Your task to perform on an android device: Show me recent news Image 0: 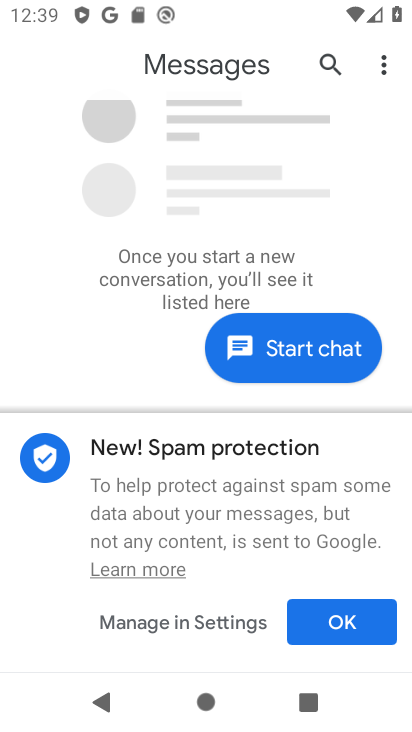
Step 0: press home button
Your task to perform on an android device: Show me recent news Image 1: 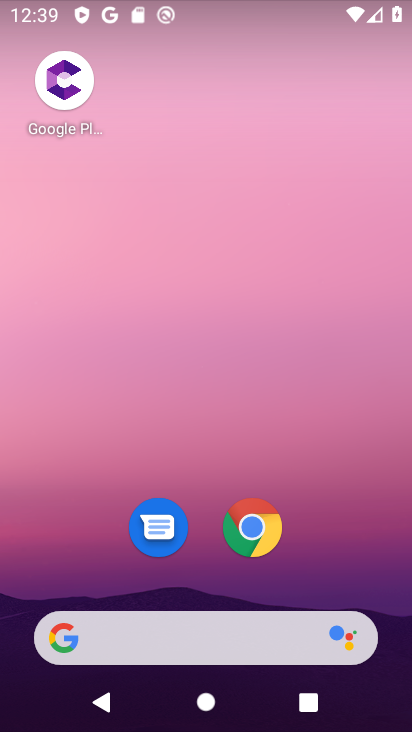
Step 1: drag from (347, 586) to (264, 109)
Your task to perform on an android device: Show me recent news Image 2: 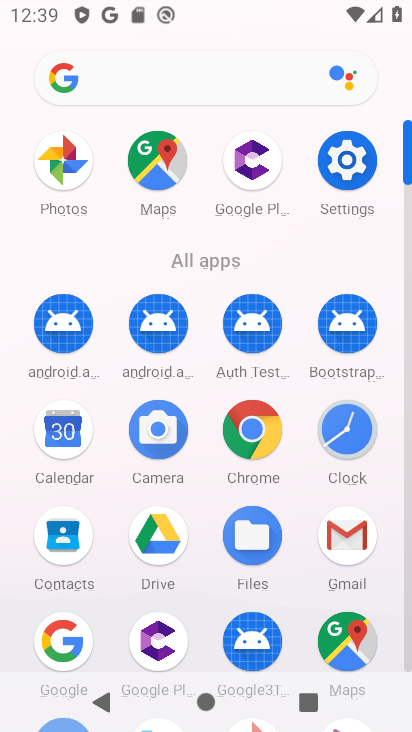
Step 2: click (272, 437)
Your task to perform on an android device: Show me recent news Image 3: 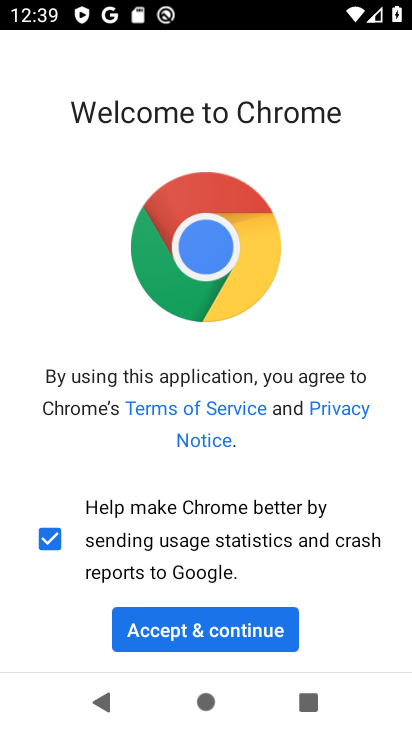
Step 3: click (257, 636)
Your task to perform on an android device: Show me recent news Image 4: 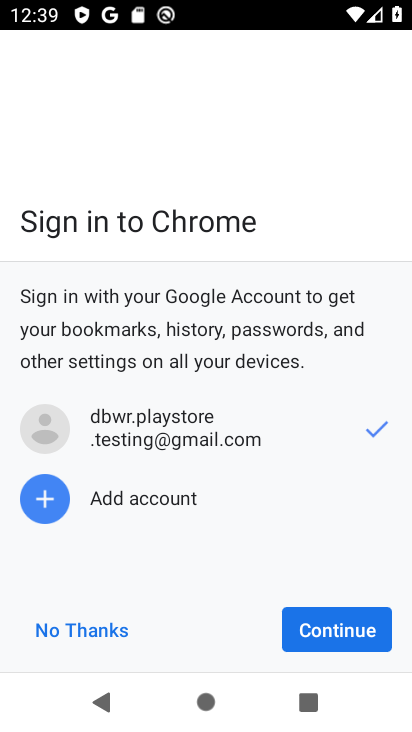
Step 4: click (313, 620)
Your task to perform on an android device: Show me recent news Image 5: 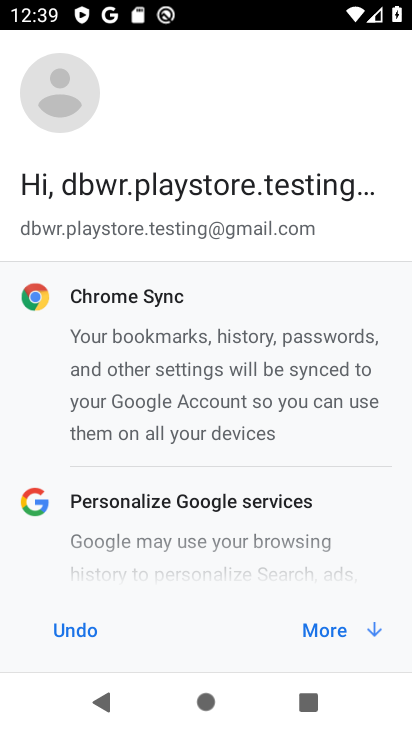
Step 5: click (315, 626)
Your task to perform on an android device: Show me recent news Image 6: 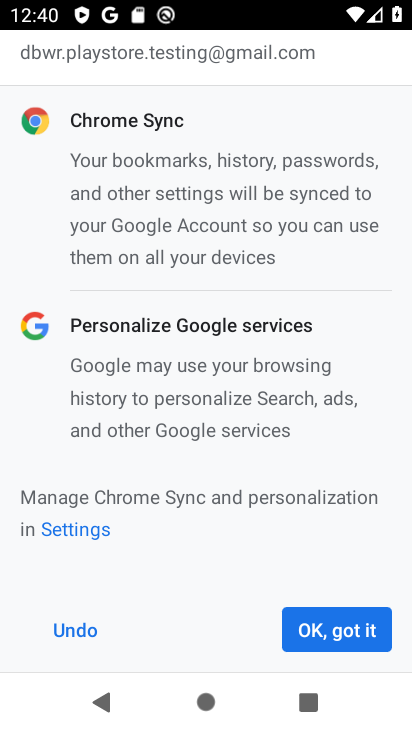
Step 6: click (319, 627)
Your task to perform on an android device: Show me recent news Image 7: 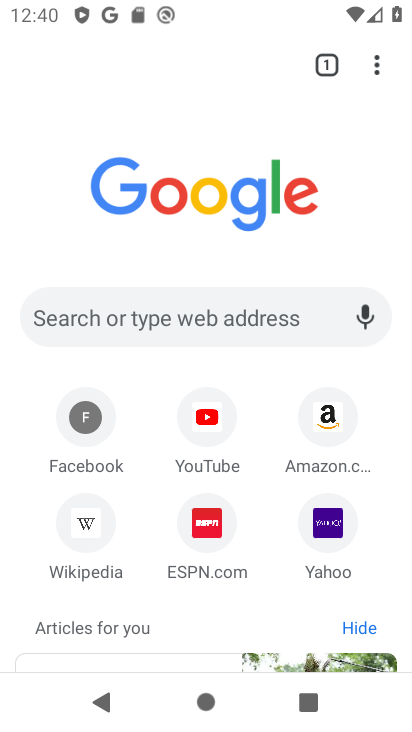
Step 7: type "recent news"
Your task to perform on an android device: Show me recent news Image 8: 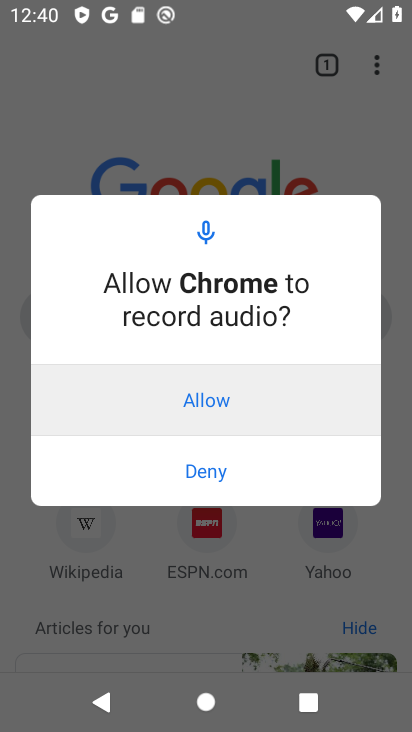
Step 8: click (206, 483)
Your task to perform on an android device: Show me recent news Image 9: 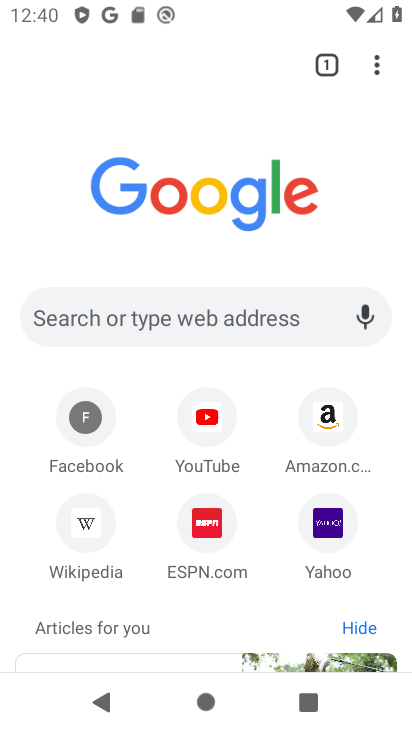
Step 9: click (225, 328)
Your task to perform on an android device: Show me recent news Image 10: 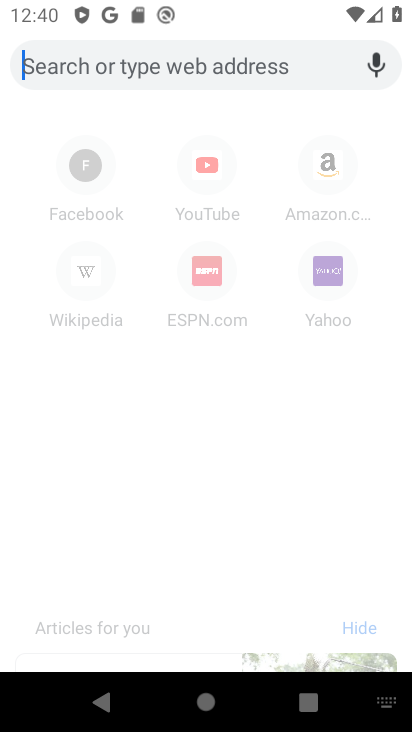
Step 10: type "recent news"
Your task to perform on an android device: Show me recent news Image 11: 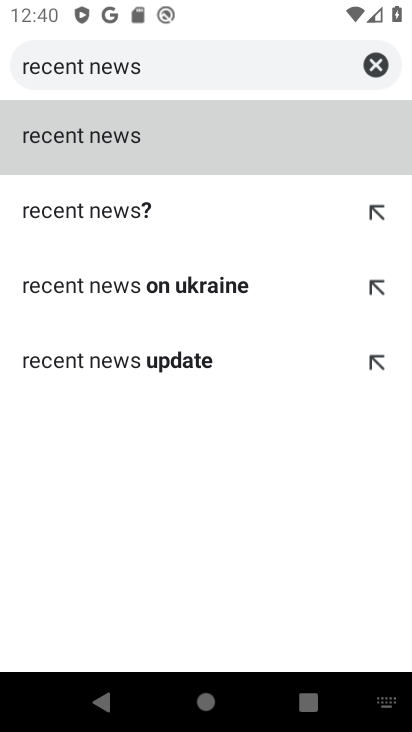
Step 11: click (90, 143)
Your task to perform on an android device: Show me recent news Image 12: 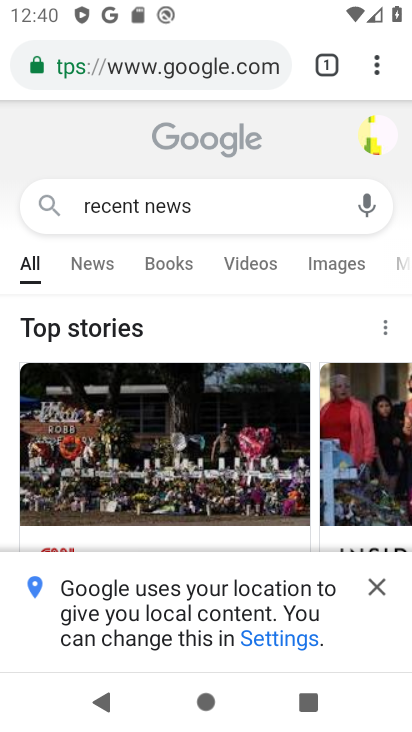
Step 12: click (380, 592)
Your task to perform on an android device: Show me recent news Image 13: 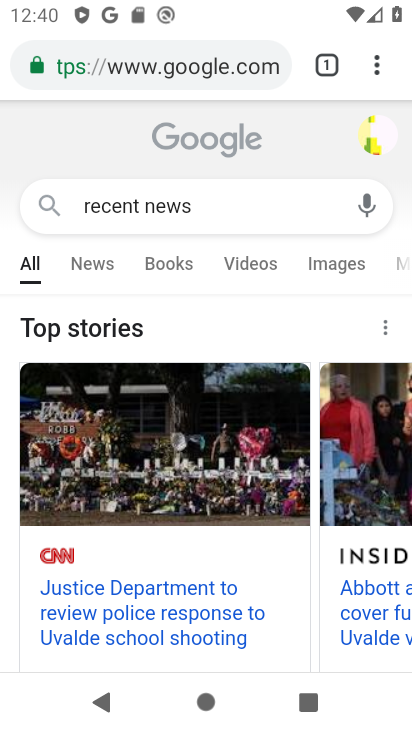
Step 13: task complete